Your task to perform on an android device: Go to Android settings Image 0: 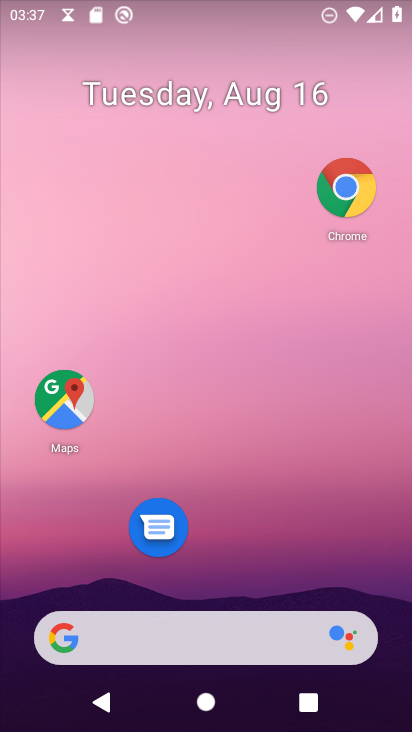
Step 0: press home button
Your task to perform on an android device: Go to Android settings Image 1: 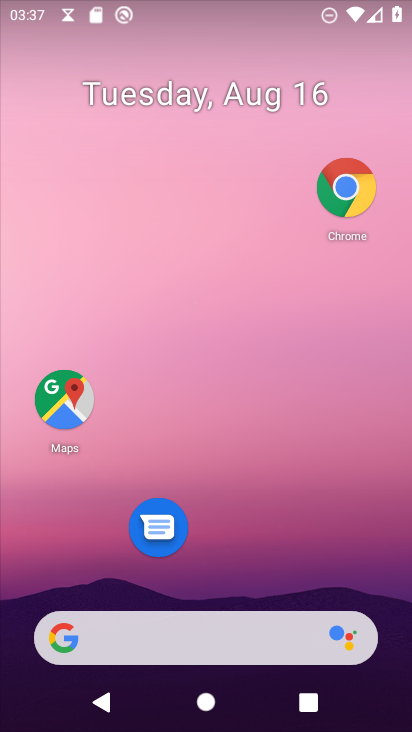
Step 1: drag from (250, 593) to (306, 139)
Your task to perform on an android device: Go to Android settings Image 2: 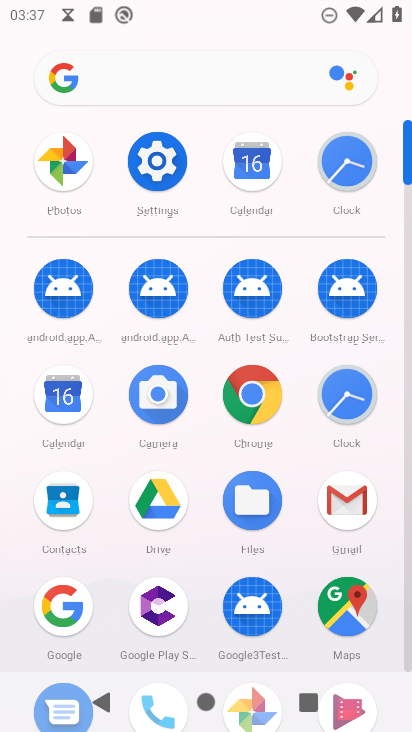
Step 2: click (159, 155)
Your task to perform on an android device: Go to Android settings Image 3: 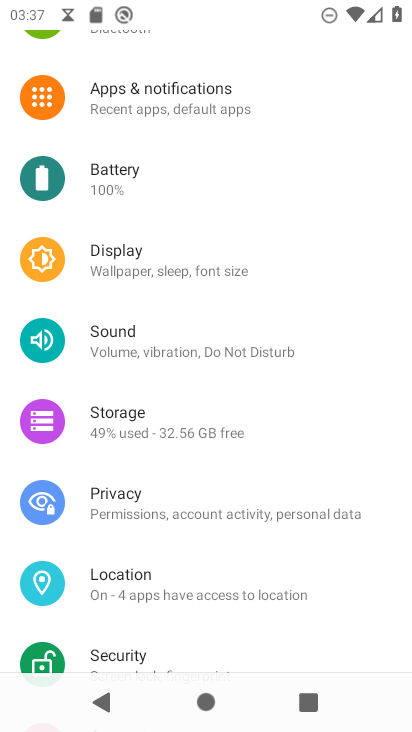
Step 3: drag from (202, 651) to (211, 60)
Your task to perform on an android device: Go to Android settings Image 4: 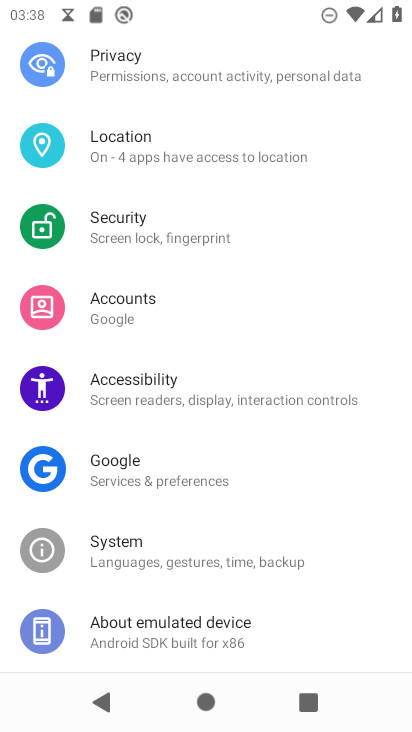
Step 4: click (222, 635)
Your task to perform on an android device: Go to Android settings Image 5: 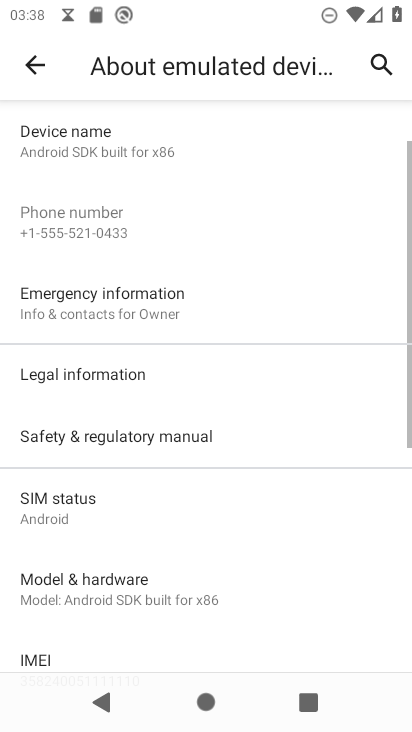
Step 5: drag from (235, 627) to (257, 310)
Your task to perform on an android device: Go to Android settings Image 6: 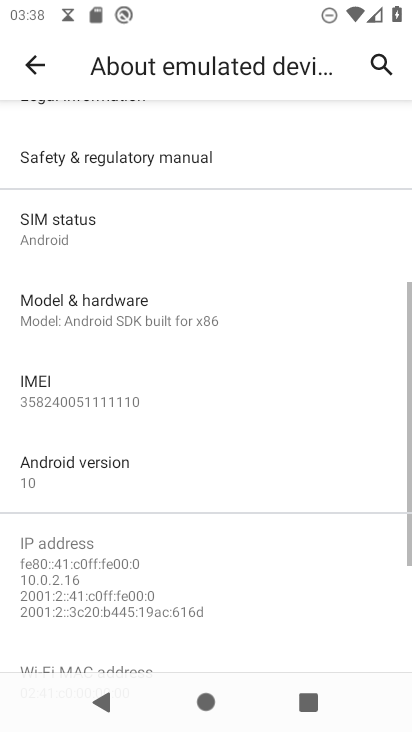
Step 6: click (102, 464)
Your task to perform on an android device: Go to Android settings Image 7: 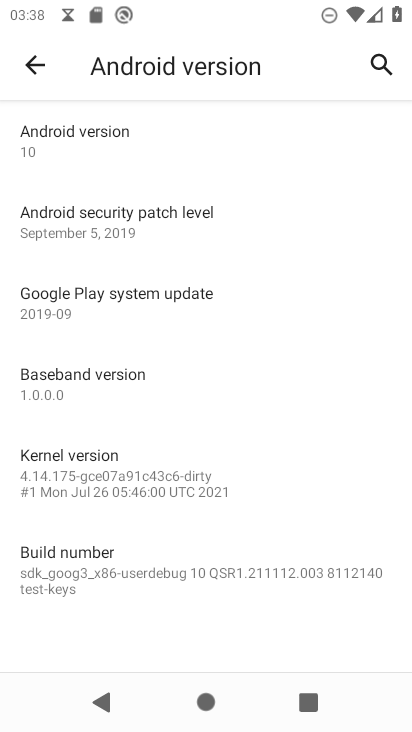
Step 7: task complete